Your task to perform on an android device: Open battery settings Image 0: 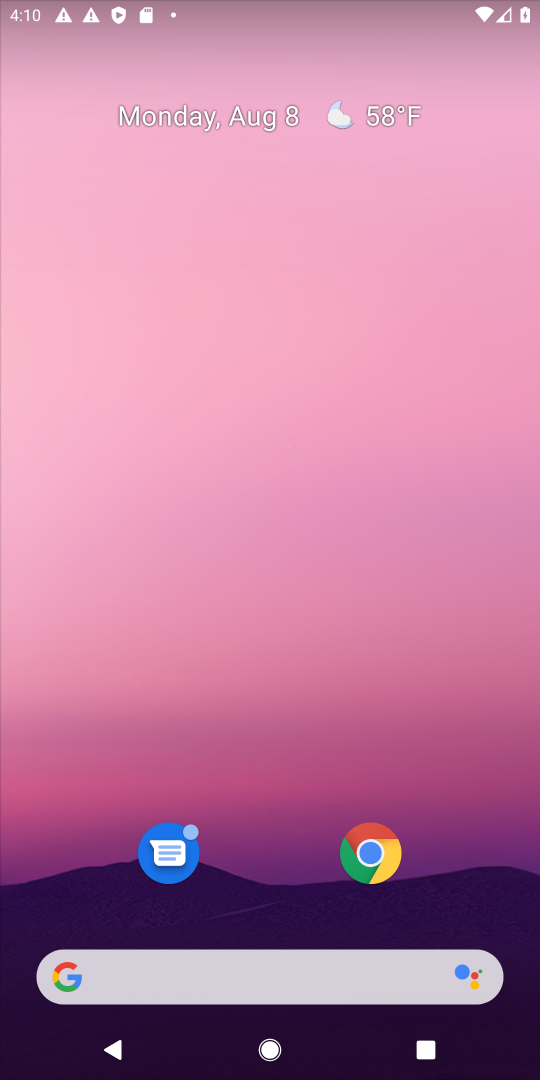
Step 0: drag from (238, 844) to (337, 48)
Your task to perform on an android device: Open battery settings Image 1: 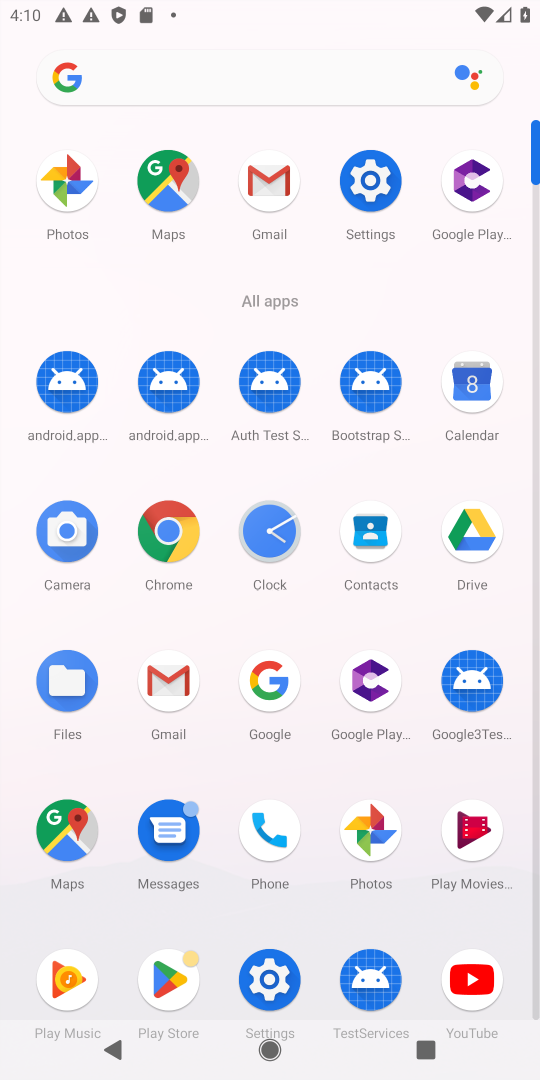
Step 1: click (265, 981)
Your task to perform on an android device: Open battery settings Image 2: 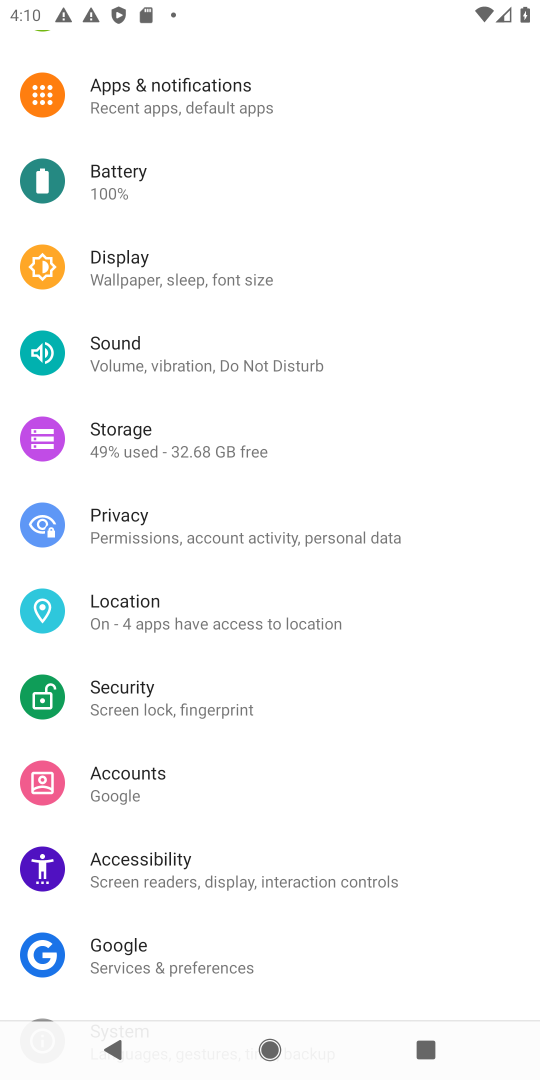
Step 2: click (141, 194)
Your task to perform on an android device: Open battery settings Image 3: 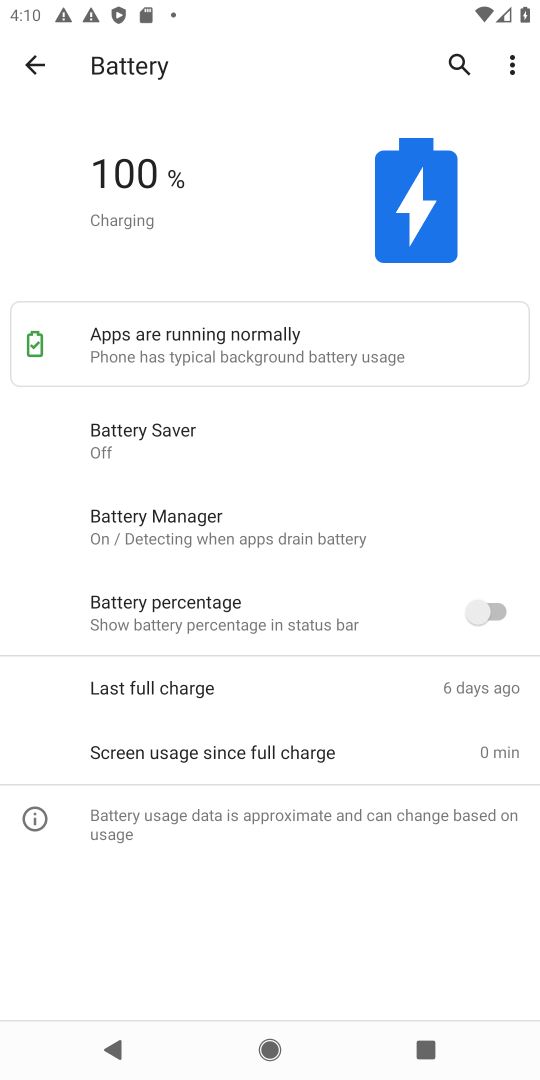
Step 3: task complete